Your task to perform on an android device: turn on the 12-hour format for clock Image 0: 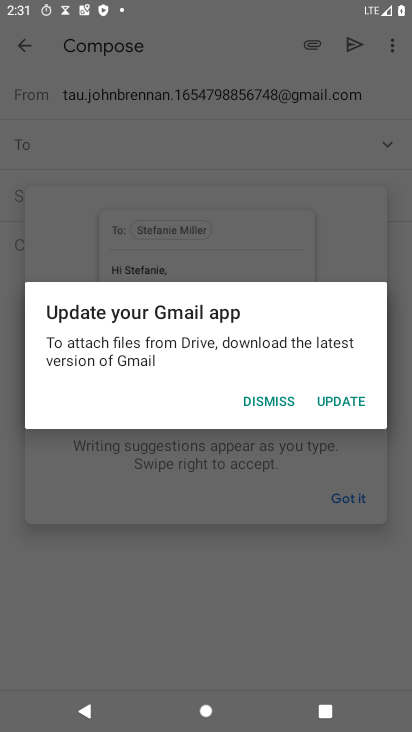
Step 0: press home button
Your task to perform on an android device: turn on the 12-hour format for clock Image 1: 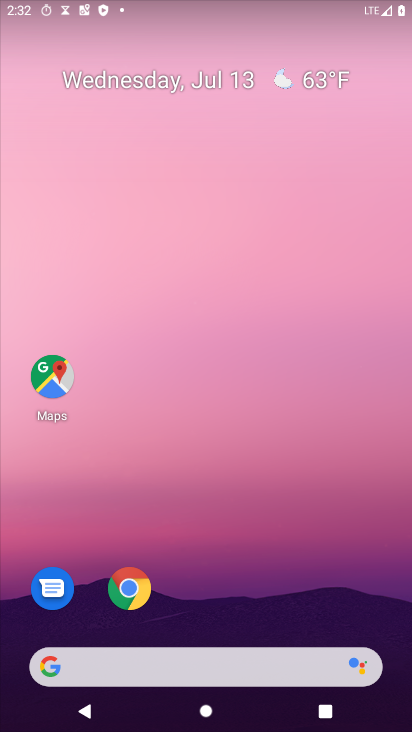
Step 1: drag from (210, 664) to (269, 37)
Your task to perform on an android device: turn on the 12-hour format for clock Image 2: 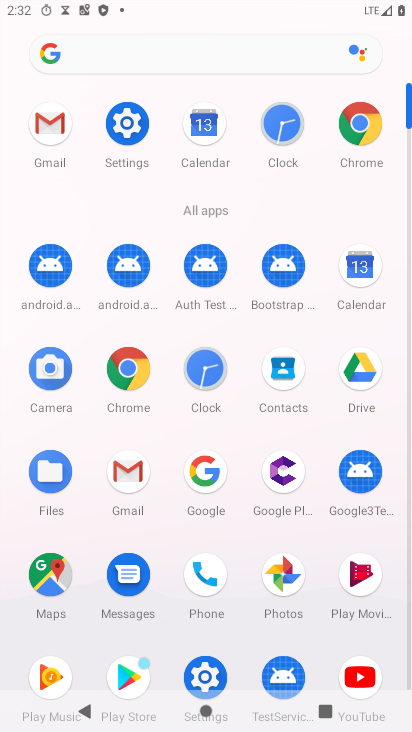
Step 2: click (126, 134)
Your task to perform on an android device: turn on the 12-hour format for clock Image 3: 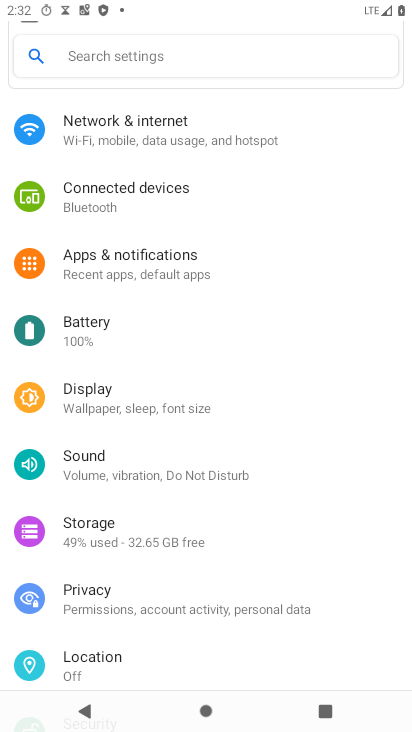
Step 3: drag from (168, 621) to (165, 173)
Your task to perform on an android device: turn on the 12-hour format for clock Image 4: 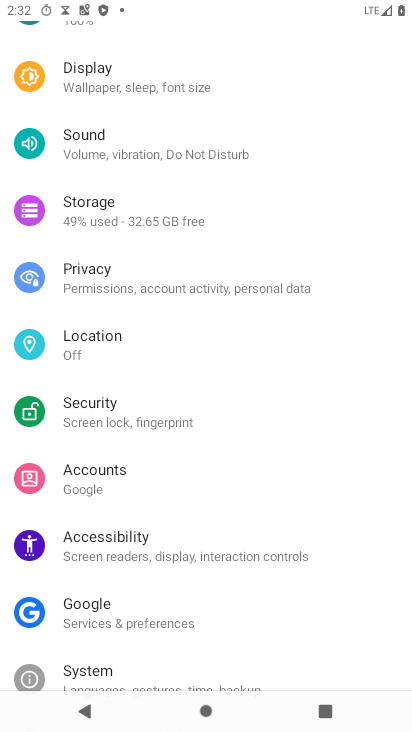
Step 4: drag from (116, 655) to (136, 263)
Your task to perform on an android device: turn on the 12-hour format for clock Image 5: 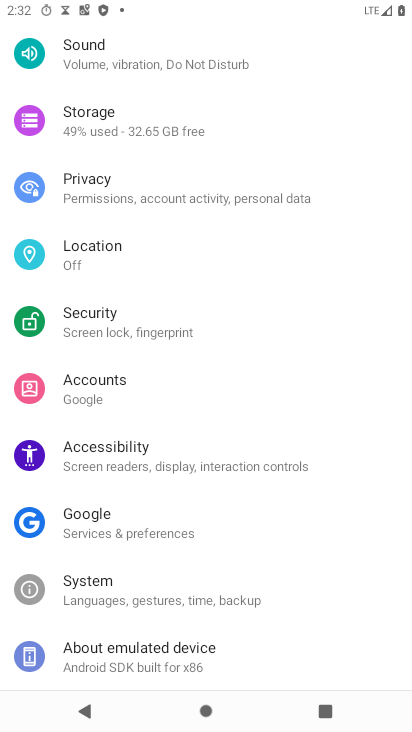
Step 5: click (85, 588)
Your task to perform on an android device: turn on the 12-hour format for clock Image 6: 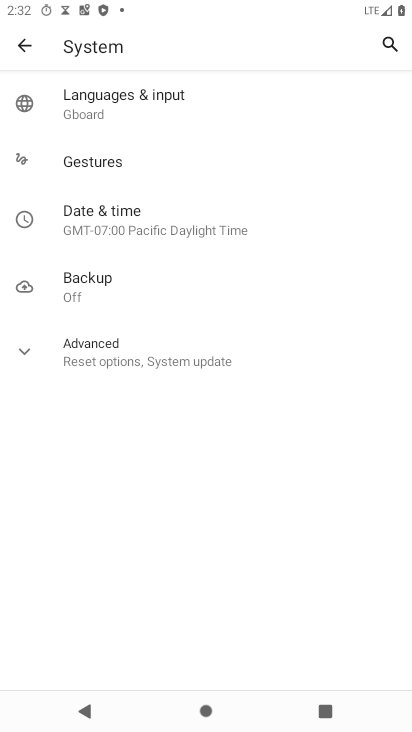
Step 6: click (121, 227)
Your task to perform on an android device: turn on the 12-hour format for clock Image 7: 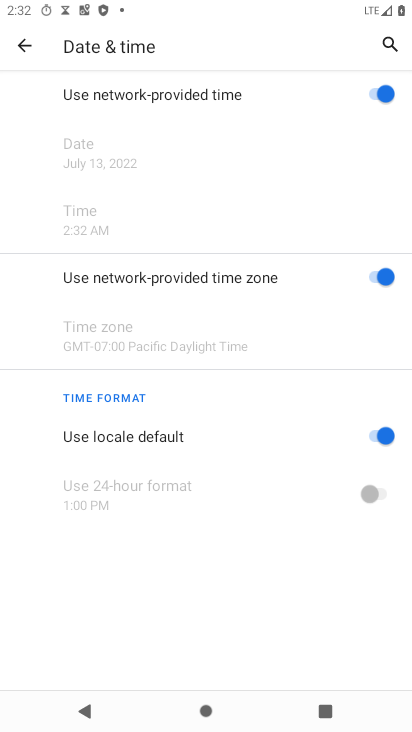
Step 7: task complete